Your task to perform on an android device: Show me recent news Image 0: 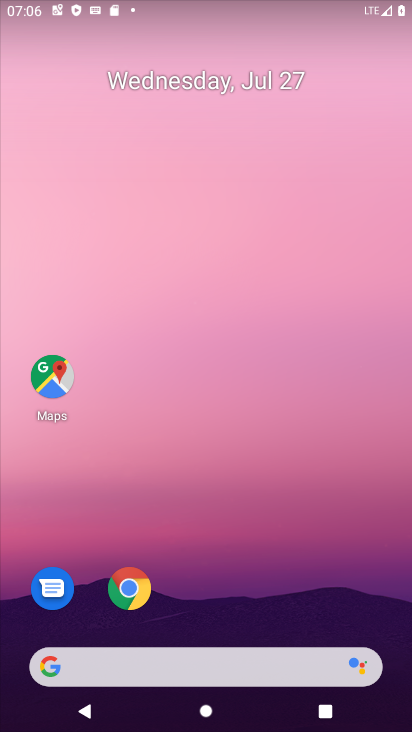
Step 0: drag from (308, 659) to (238, 0)
Your task to perform on an android device: Show me recent news Image 1: 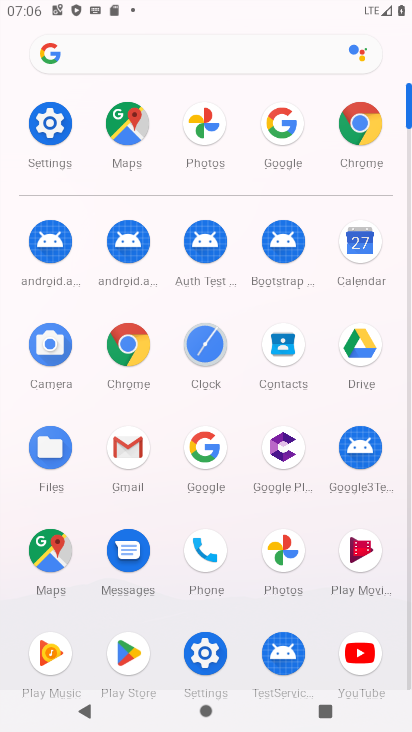
Step 1: click (116, 336)
Your task to perform on an android device: Show me recent news Image 2: 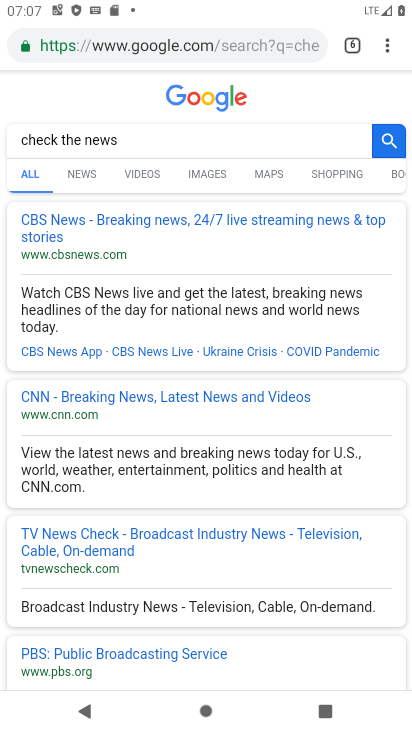
Step 2: click (250, 44)
Your task to perform on an android device: Show me recent news Image 3: 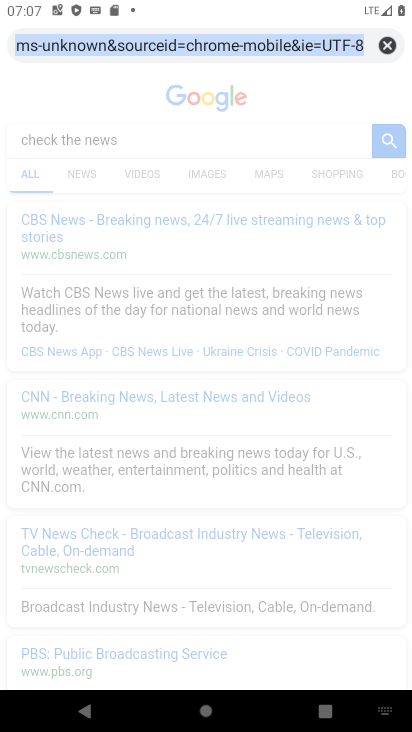
Step 3: type "recent news"
Your task to perform on an android device: Show me recent news Image 4: 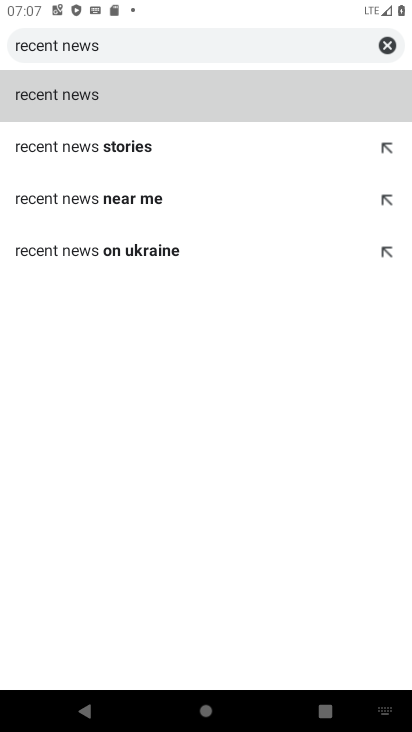
Step 4: click (151, 98)
Your task to perform on an android device: Show me recent news Image 5: 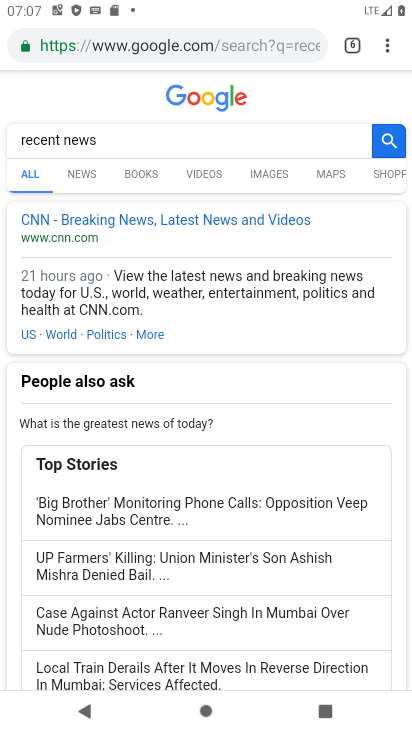
Step 5: task complete